Your task to perform on an android device: Search for a new skincare product Image 0: 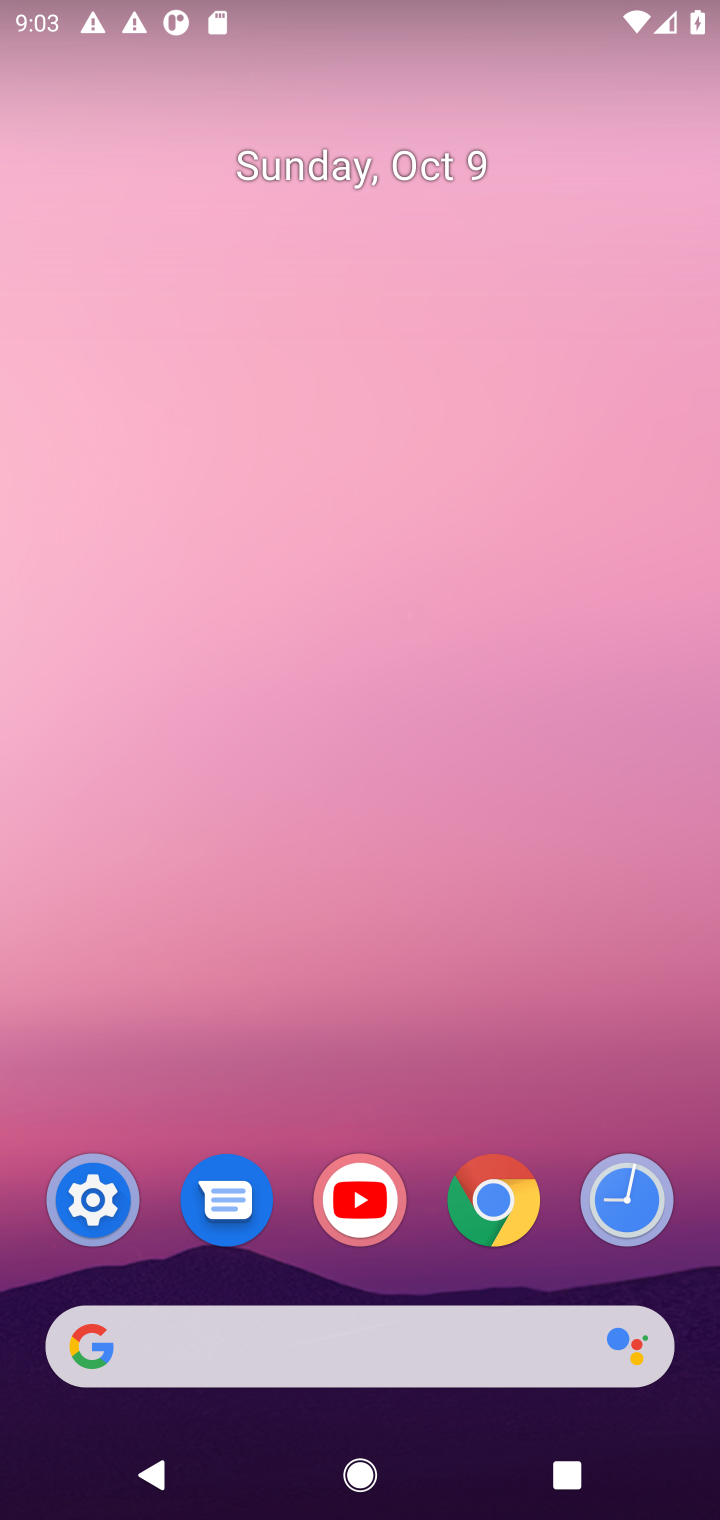
Step 0: drag from (466, 990) to (664, 142)
Your task to perform on an android device: Search for a new skincare product Image 1: 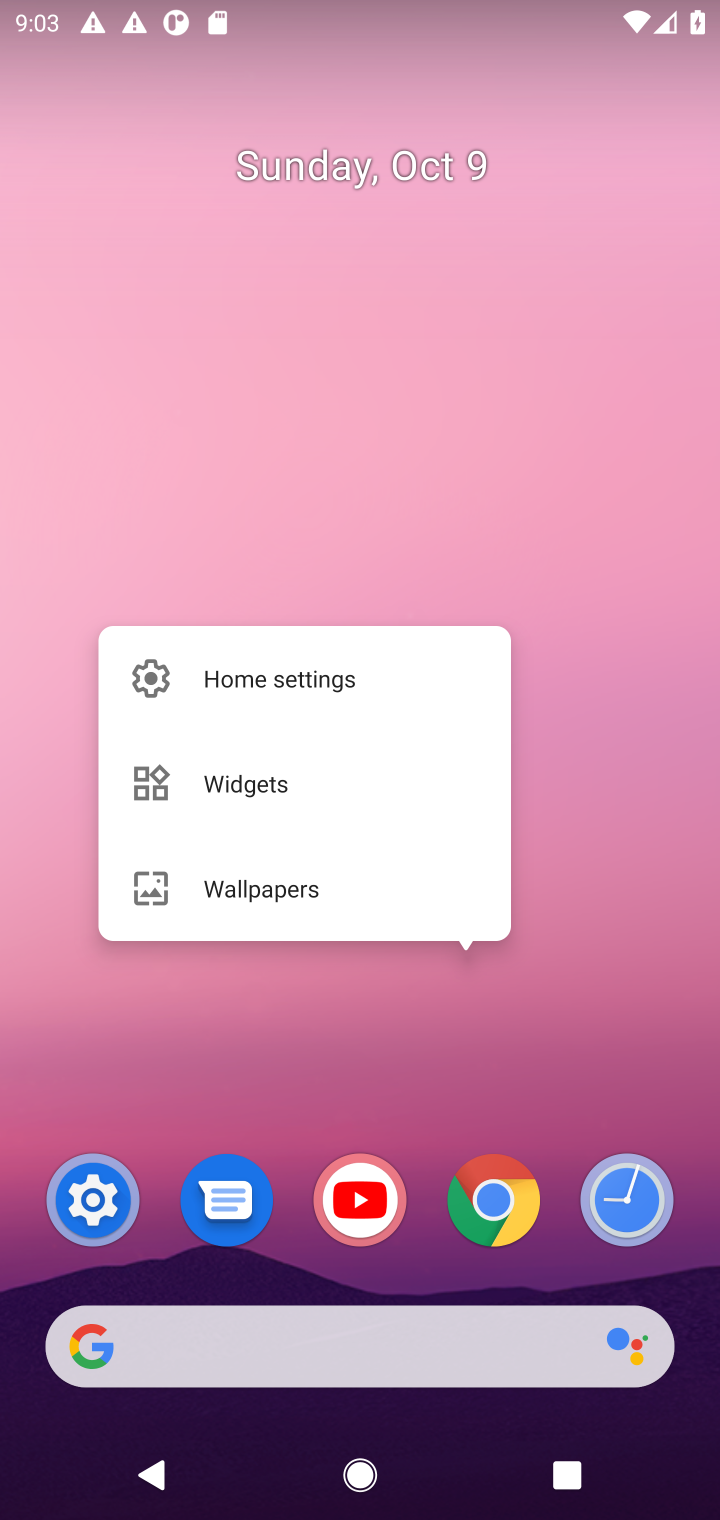
Step 1: click (636, 931)
Your task to perform on an android device: Search for a new skincare product Image 2: 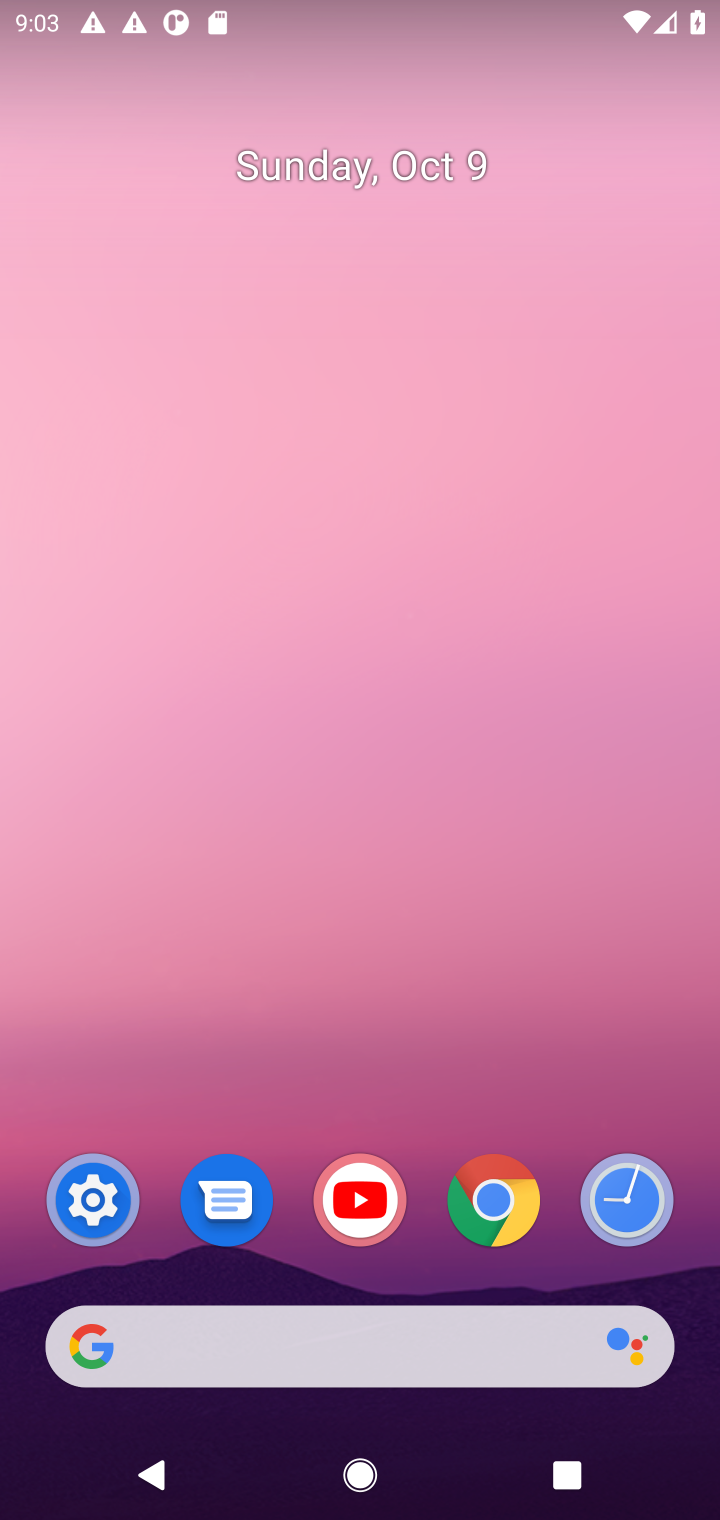
Step 2: click (520, 1190)
Your task to perform on an android device: Search for a new skincare product Image 3: 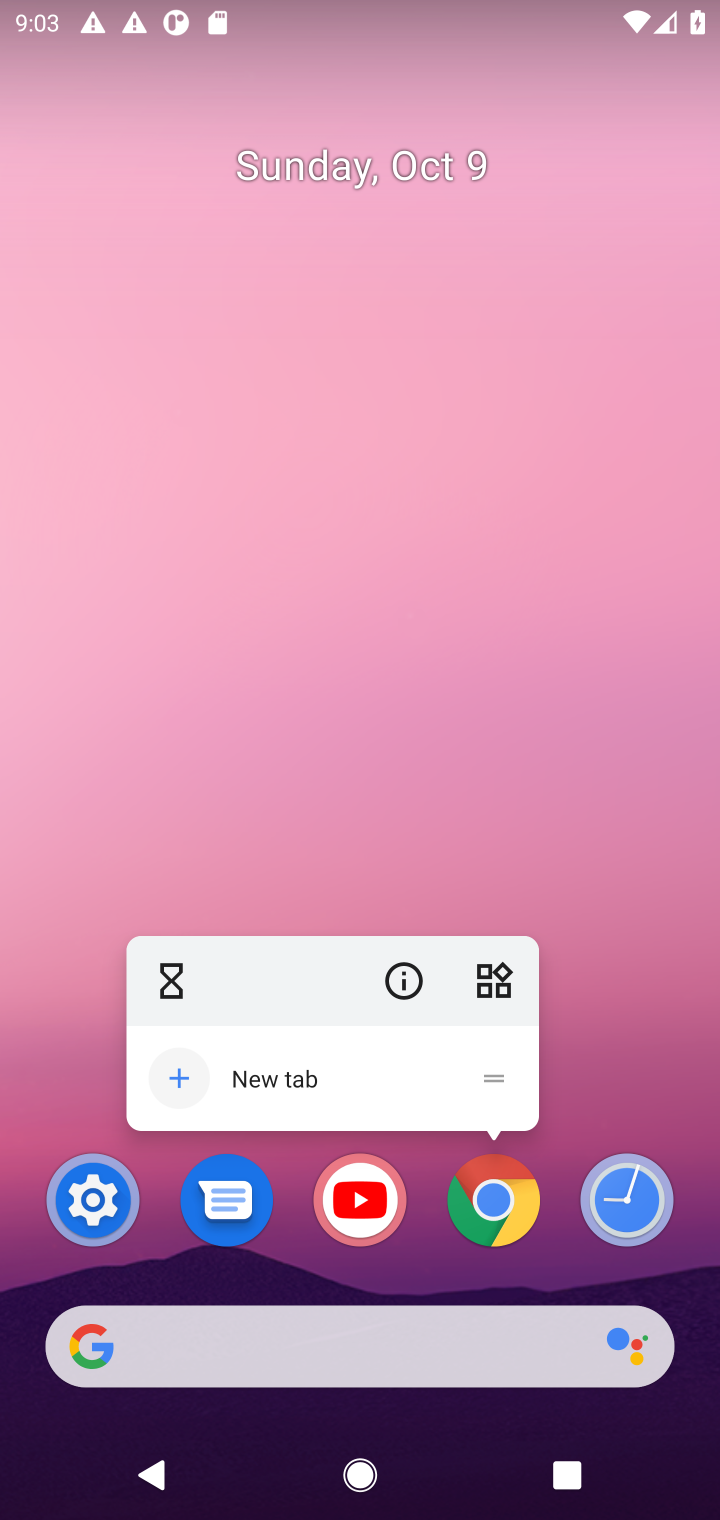
Step 3: click (483, 1197)
Your task to perform on an android device: Search for a new skincare product Image 4: 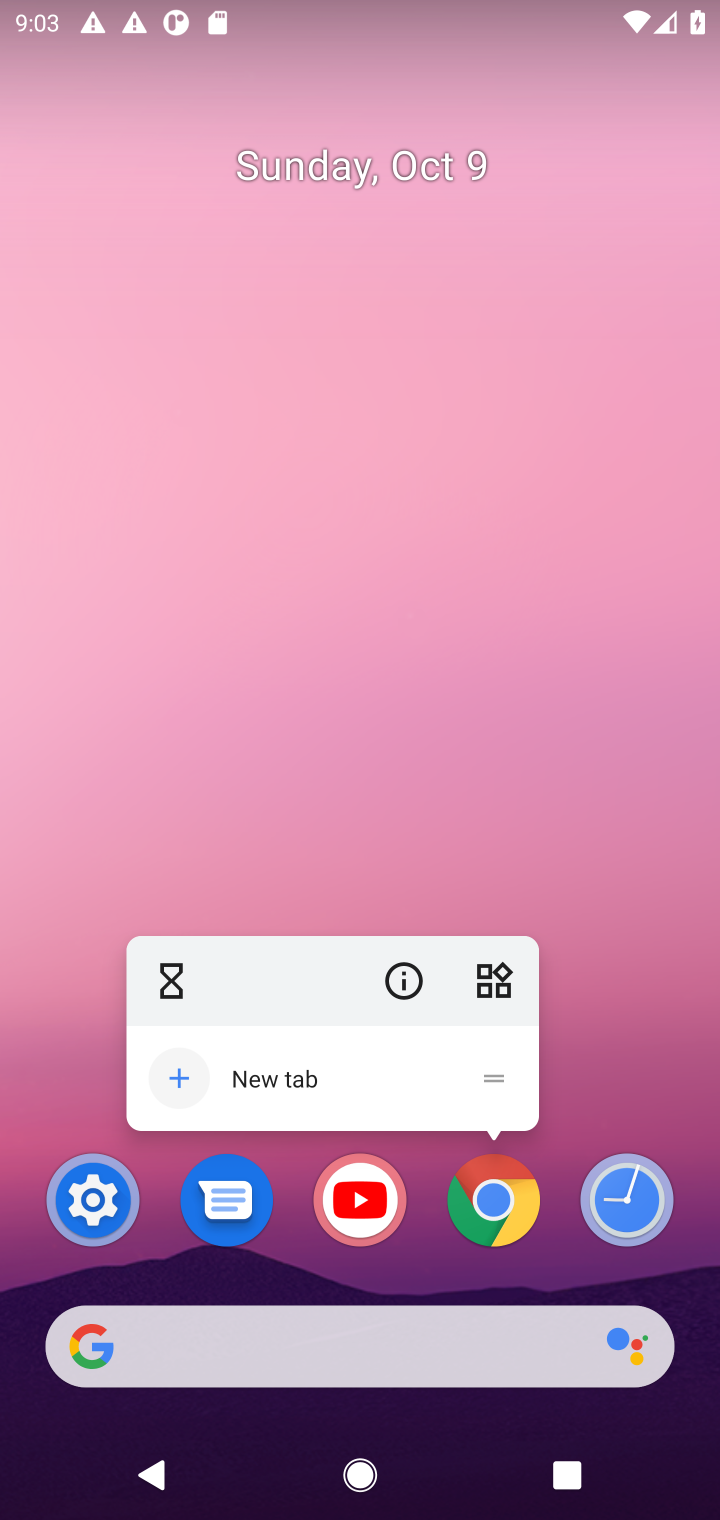
Step 4: click (483, 1197)
Your task to perform on an android device: Search for a new skincare product Image 5: 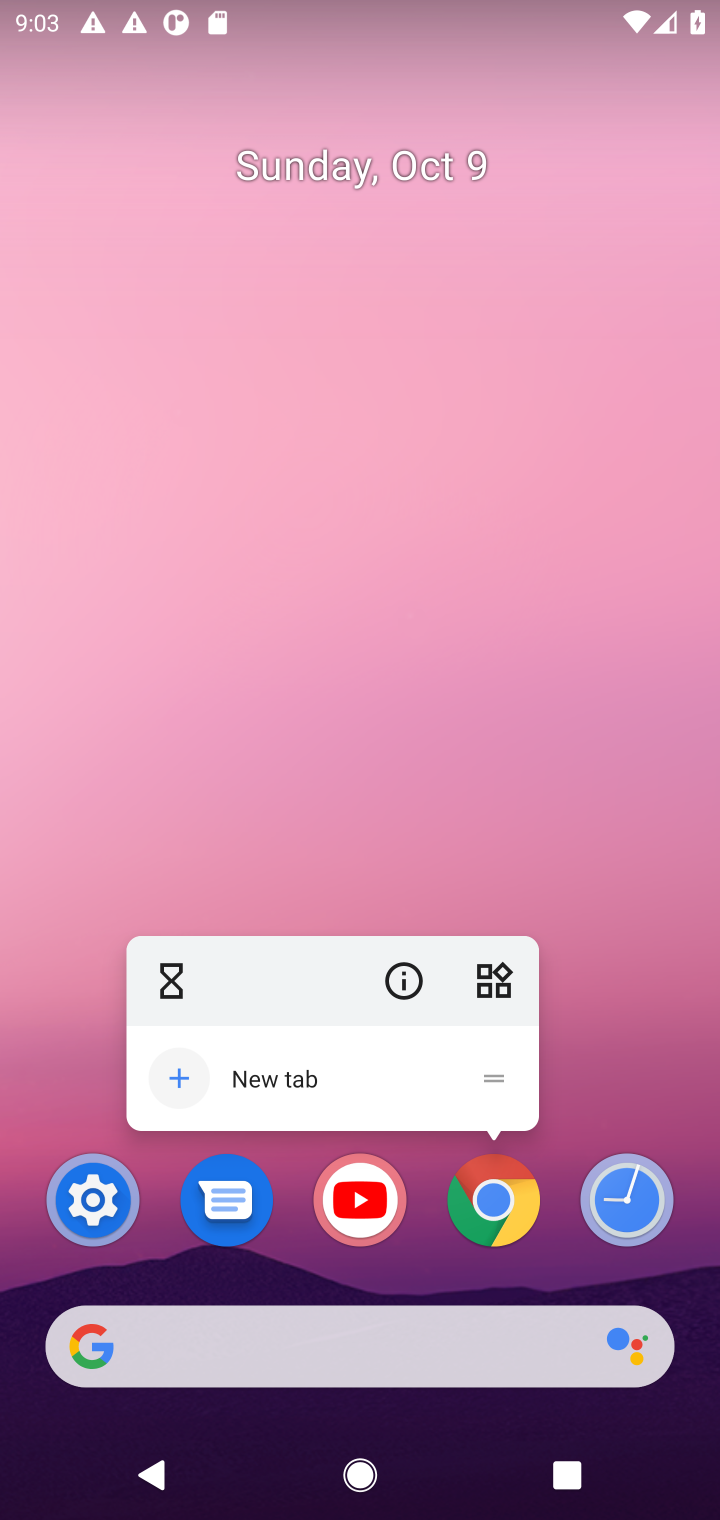
Step 5: click (483, 1197)
Your task to perform on an android device: Search for a new skincare product Image 6: 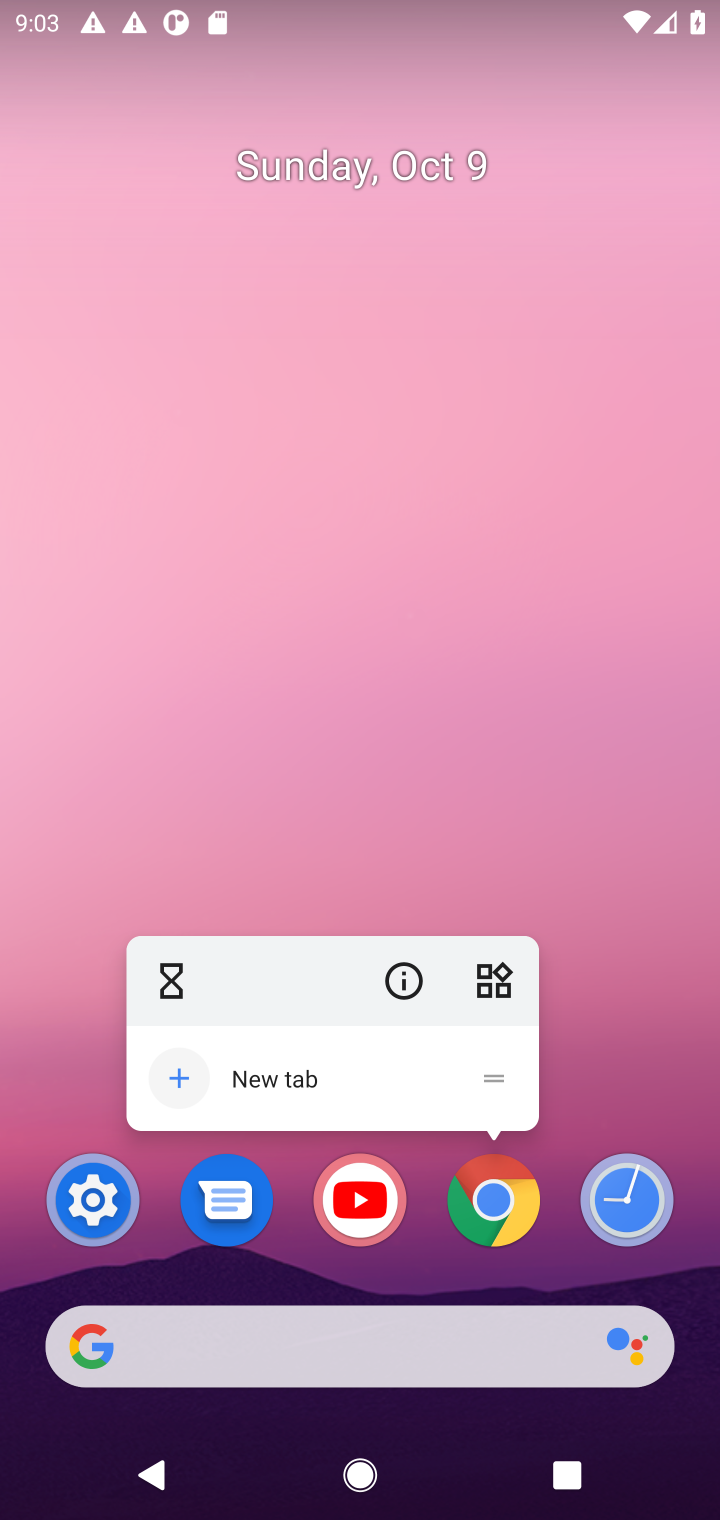
Step 6: click (483, 1197)
Your task to perform on an android device: Search for a new skincare product Image 7: 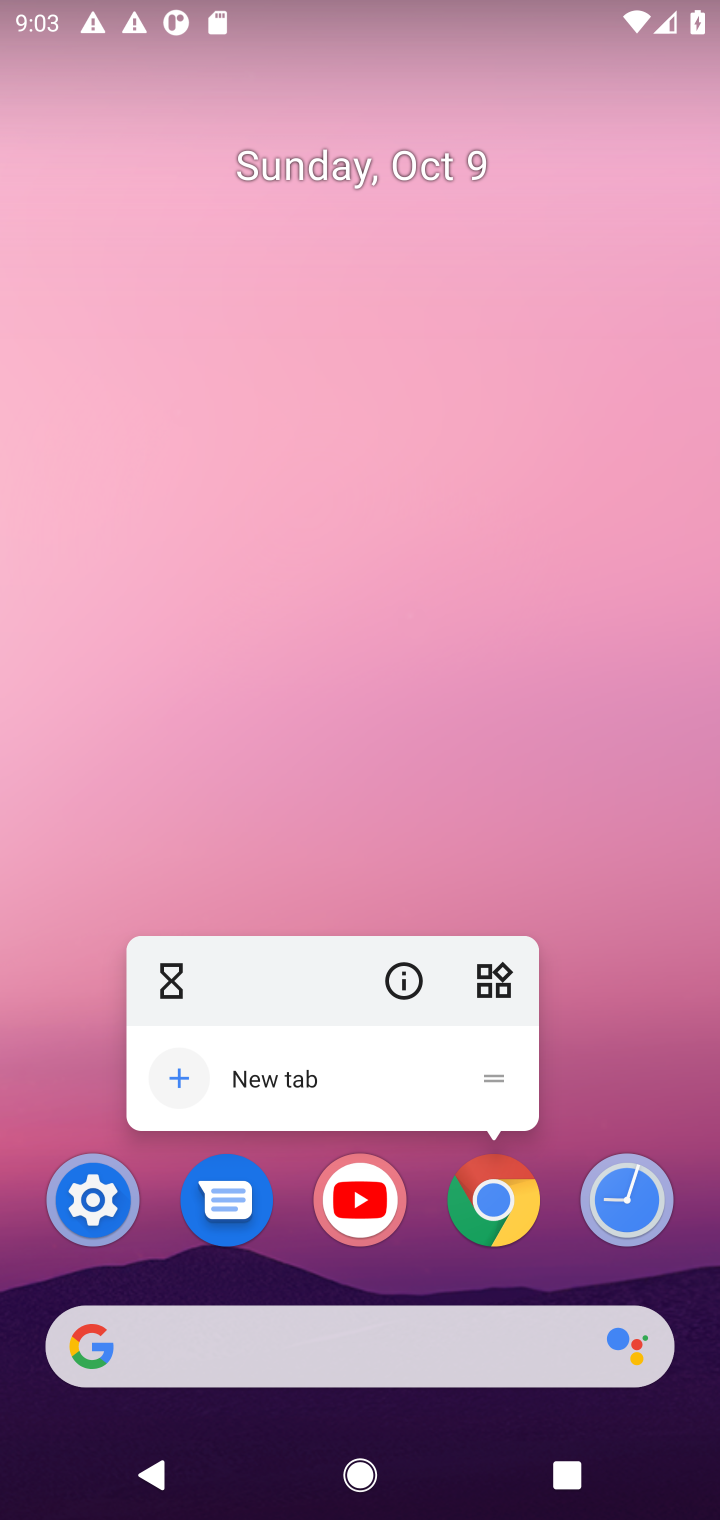
Step 7: click (495, 1201)
Your task to perform on an android device: Search for a new skincare product Image 8: 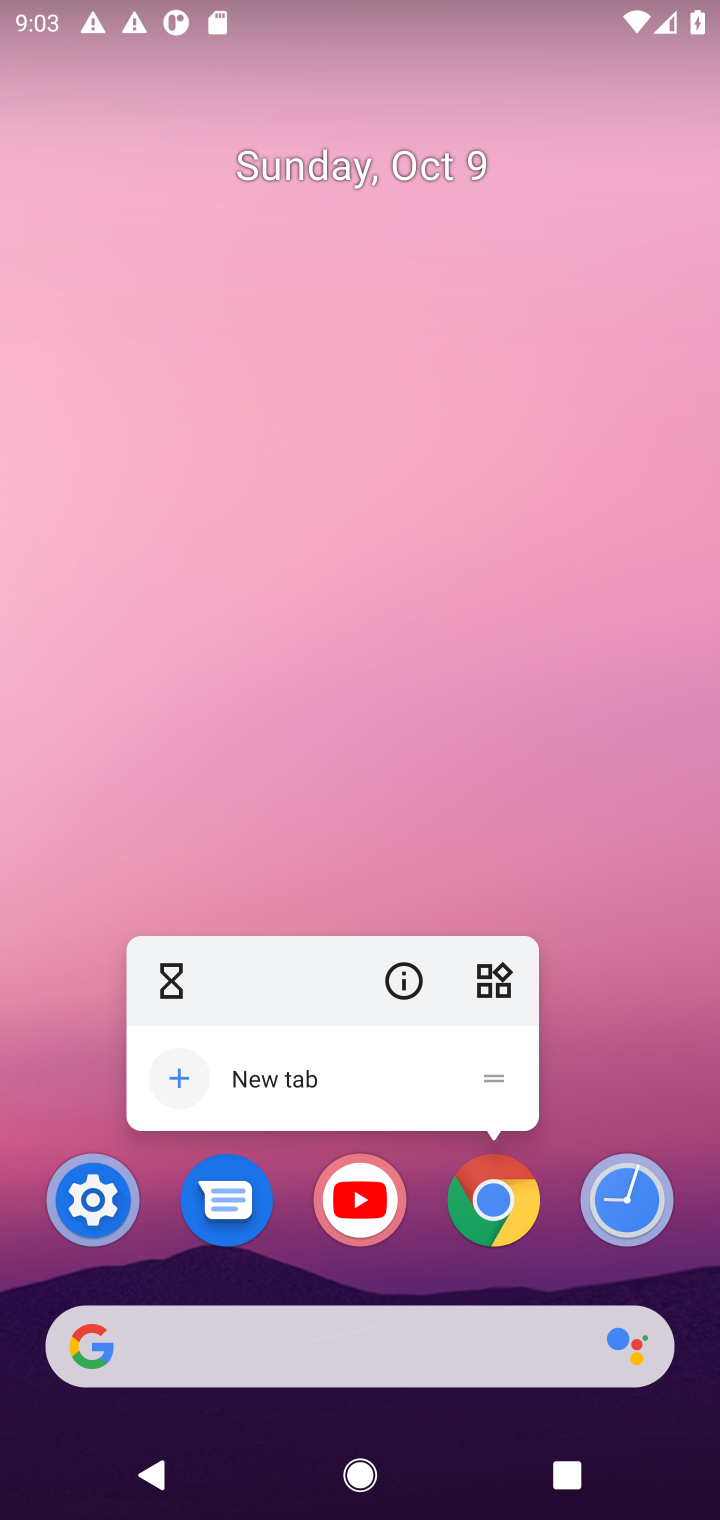
Step 8: click (495, 1201)
Your task to perform on an android device: Search for a new skincare product Image 9: 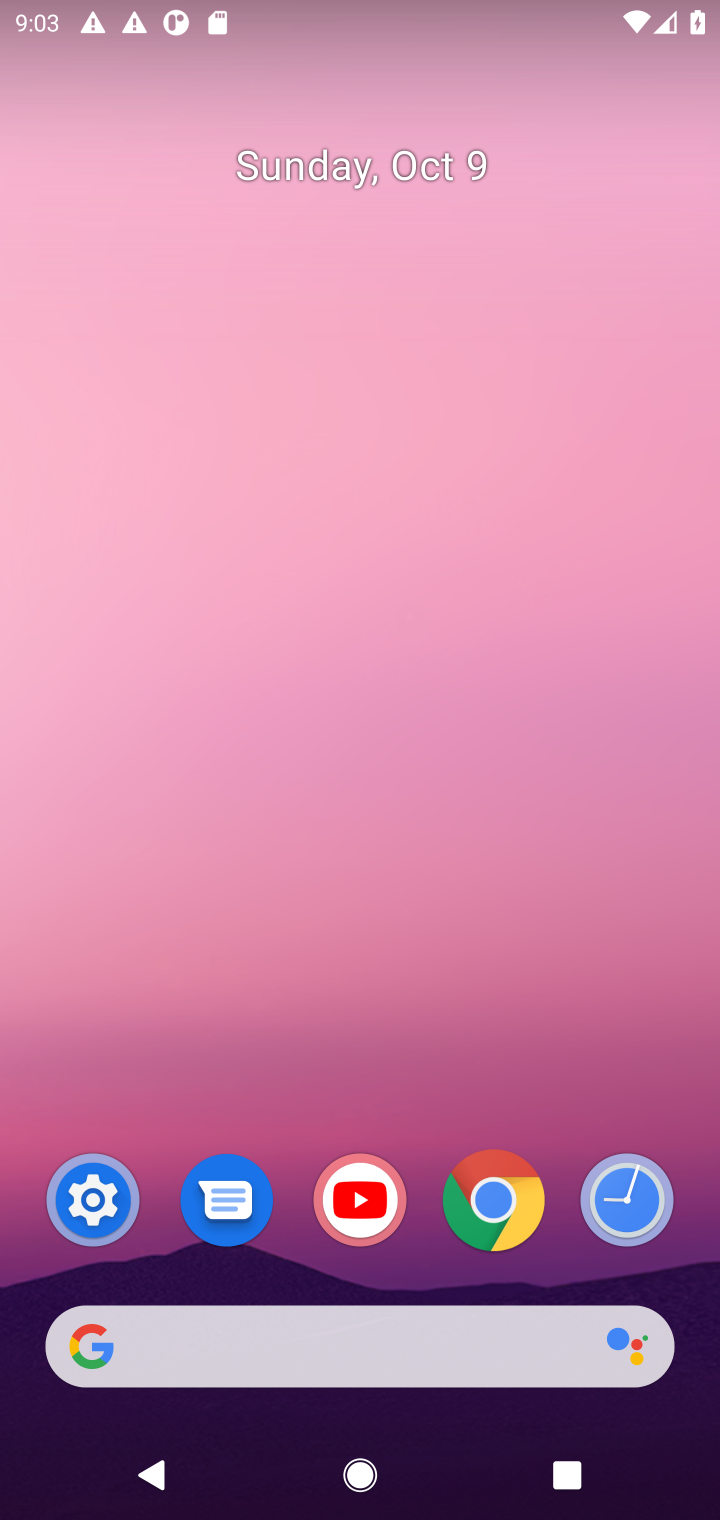
Step 9: click (494, 1194)
Your task to perform on an android device: Search for a new skincare product Image 10: 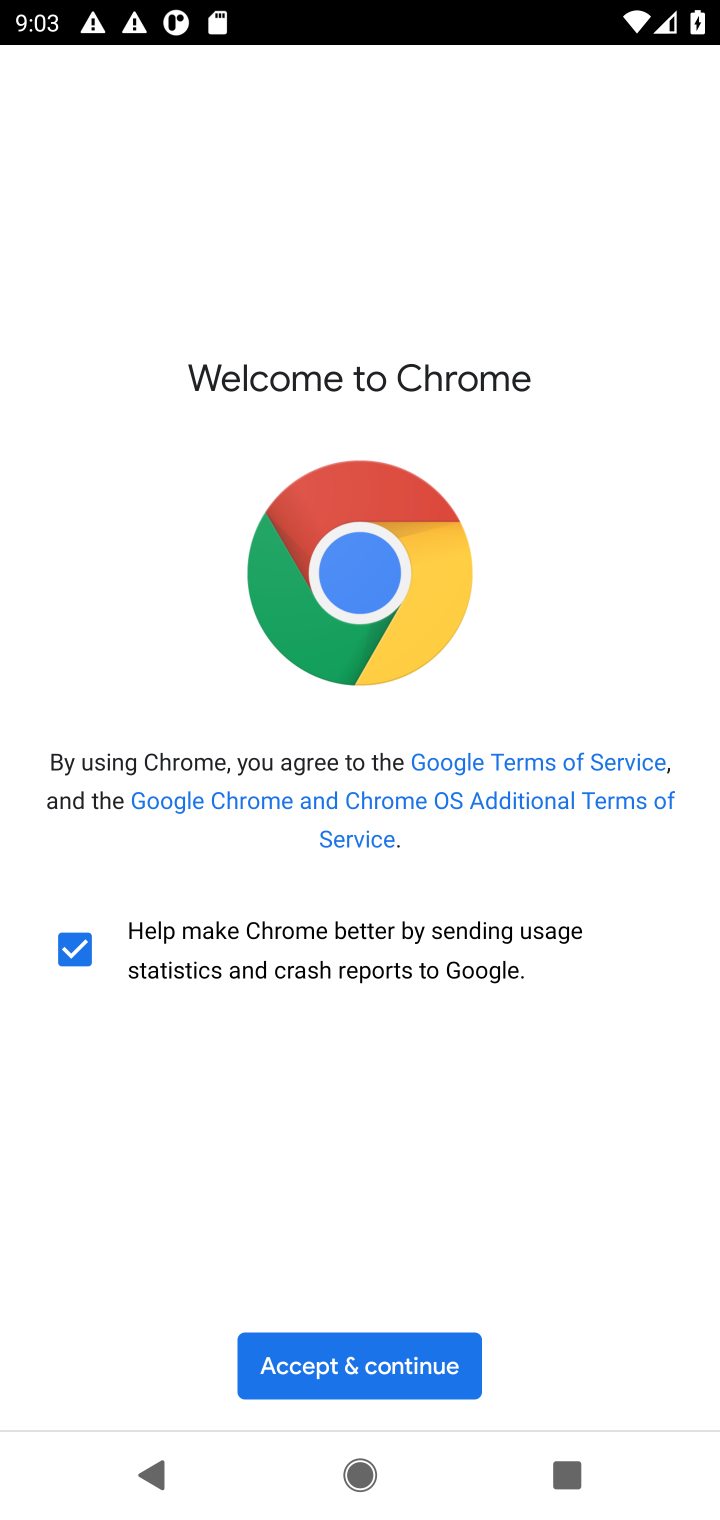
Step 10: click (449, 1352)
Your task to perform on an android device: Search for a new skincare product Image 11: 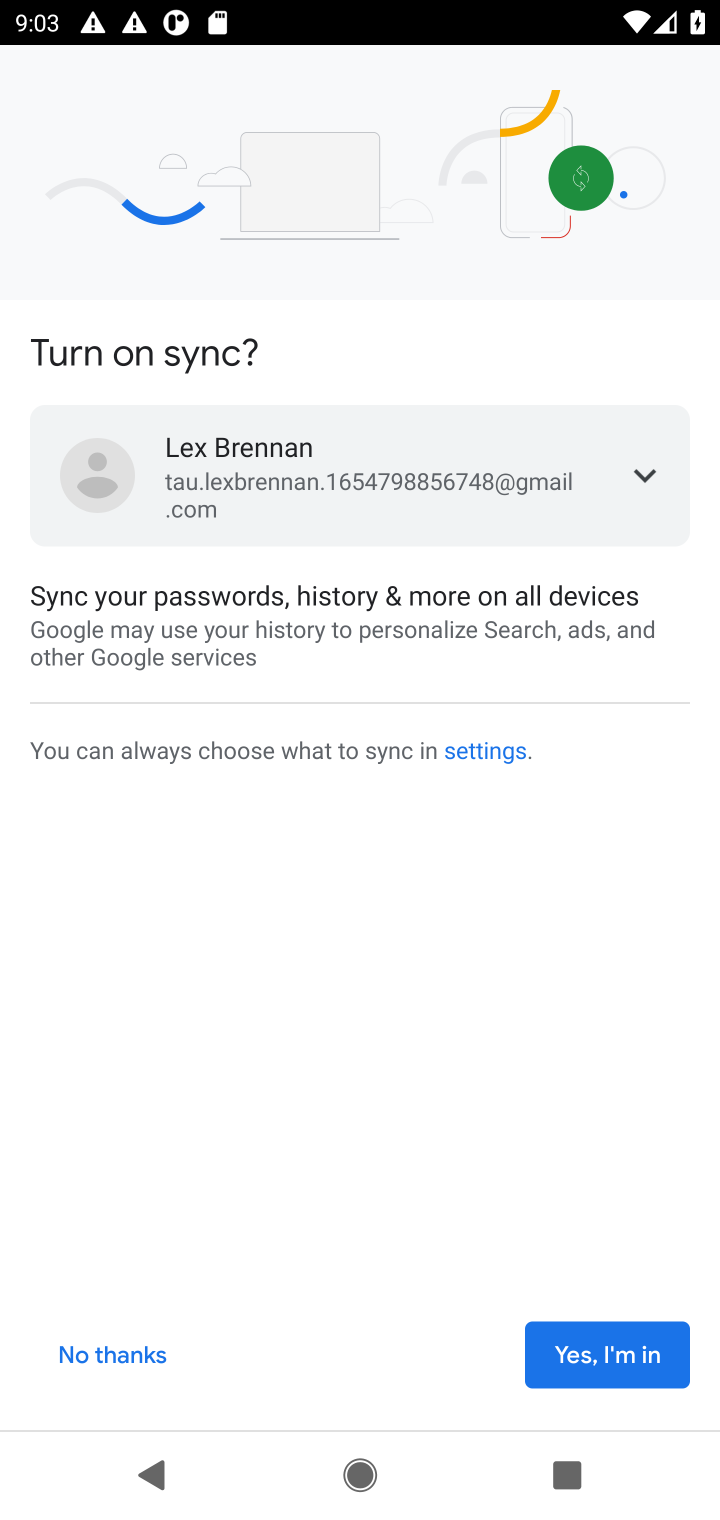
Step 11: click (635, 1346)
Your task to perform on an android device: Search for a new skincare product Image 12: 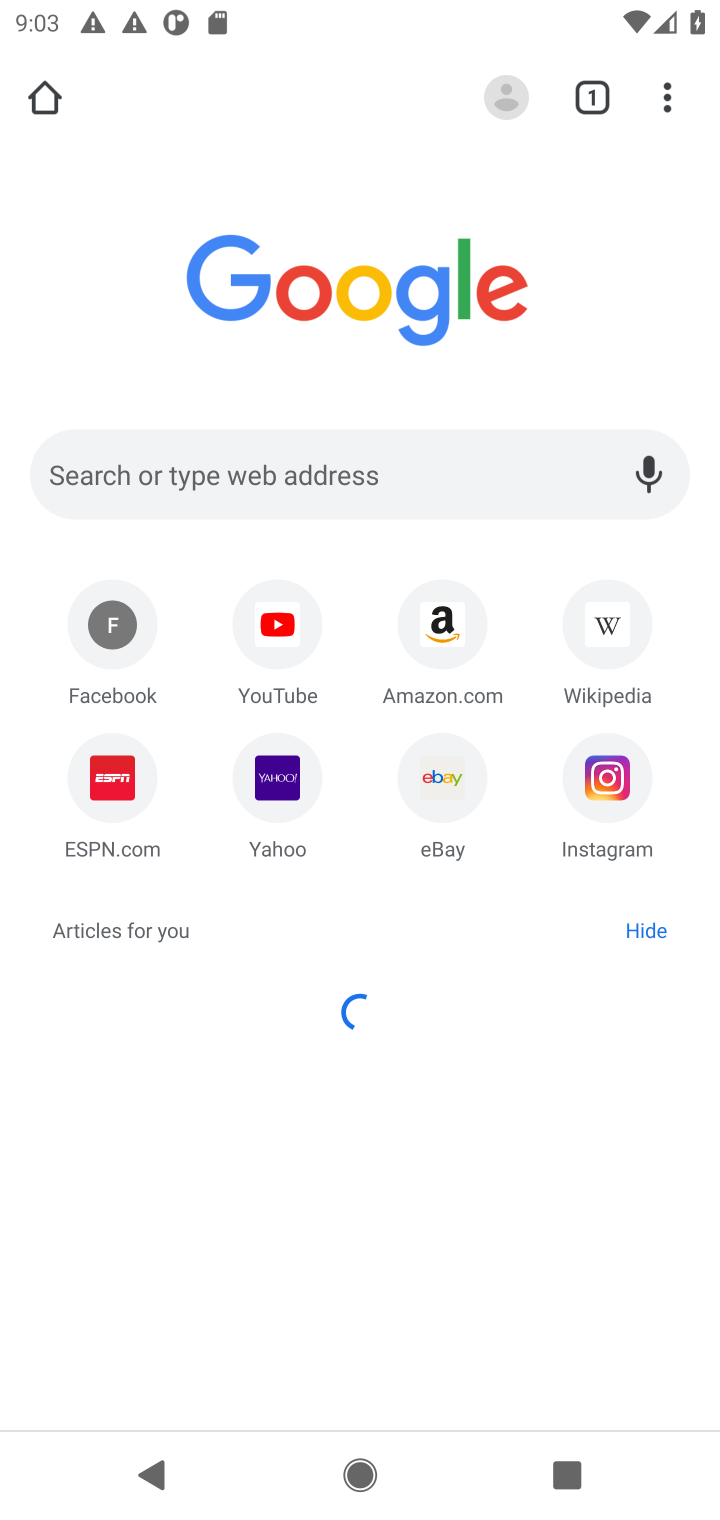
Step 12: click (305, 470)
Your task to perform on an android device: Search for a new skincare product Image 13: 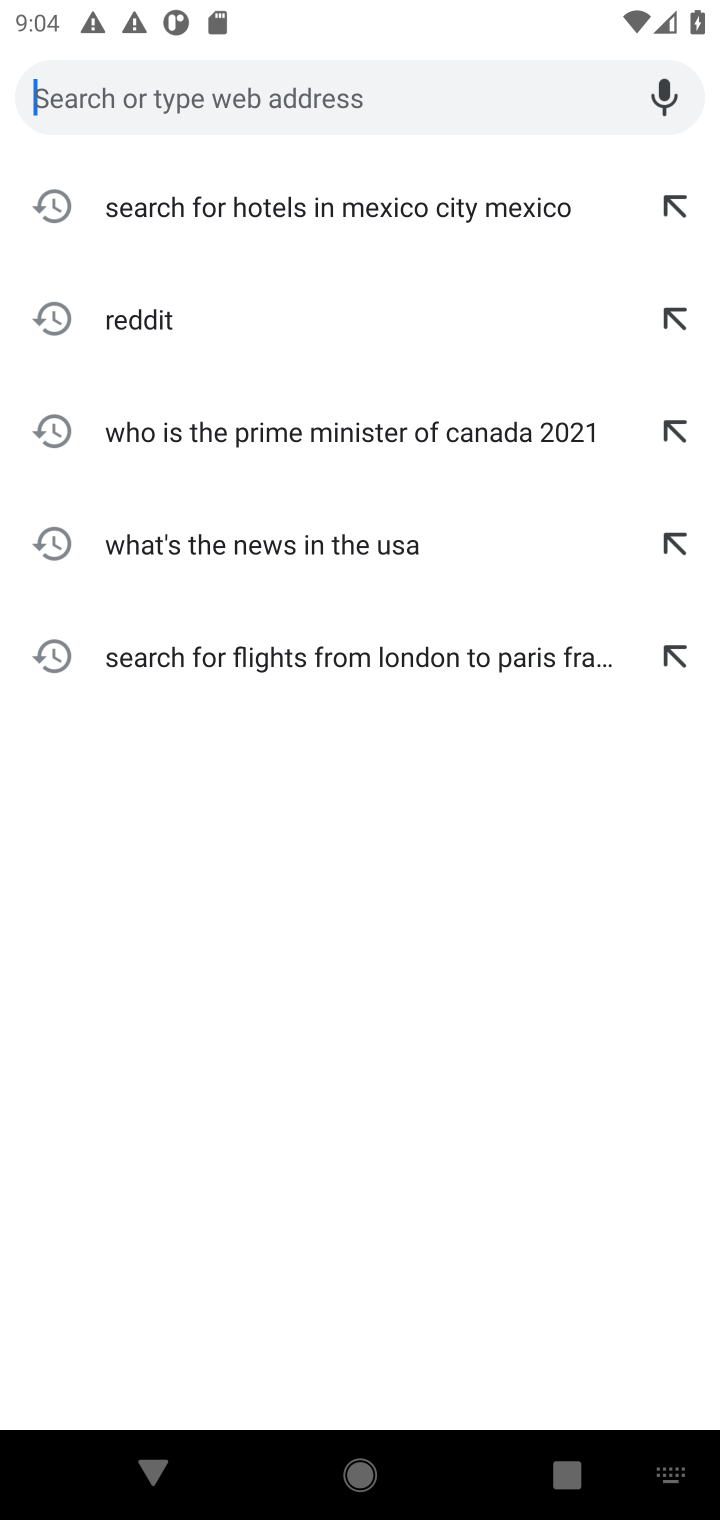
Step 13: type "new skincare product"
Your task to perform on an android device: Search for a new skincare product Image 14: 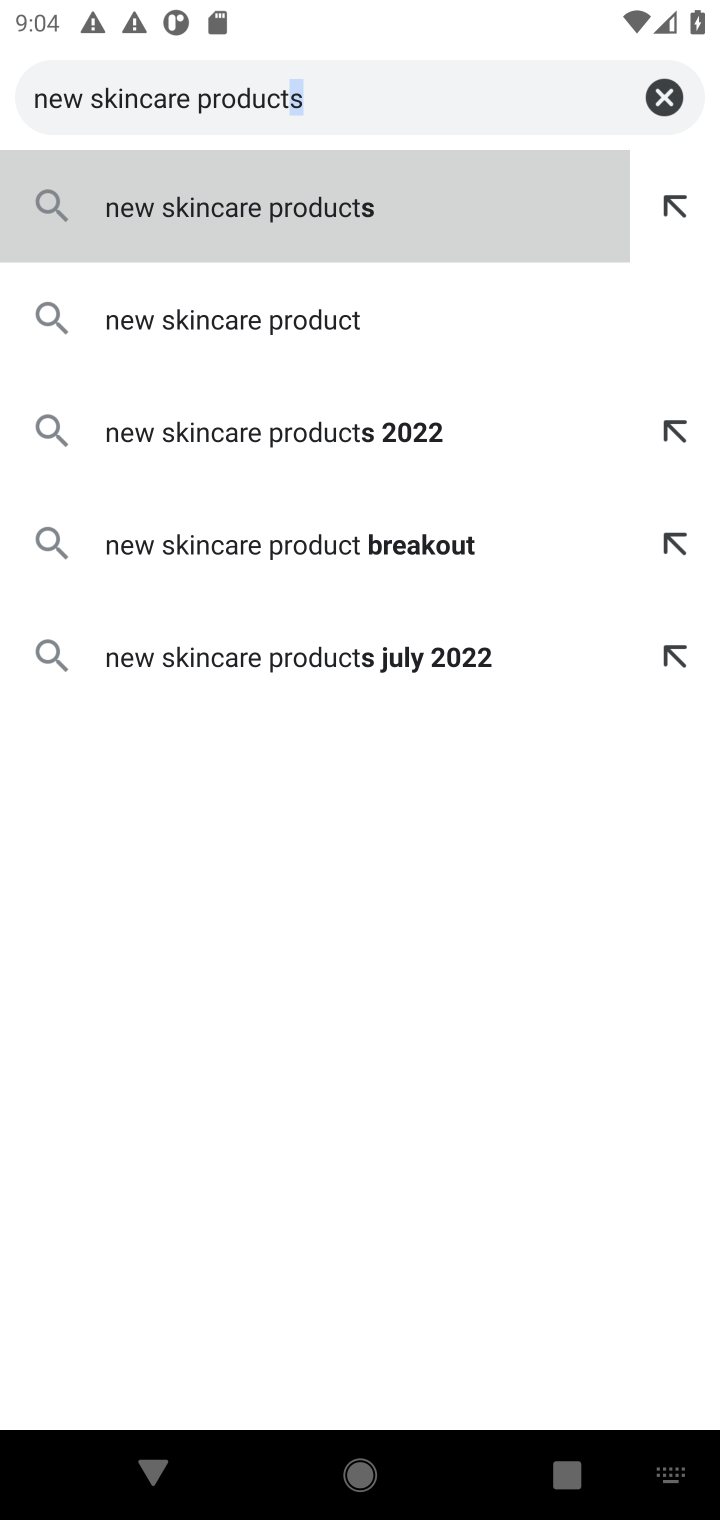
Step 14: click (224, 202)
Your task to perform on an android device: Search for a new skincare product Image 15: 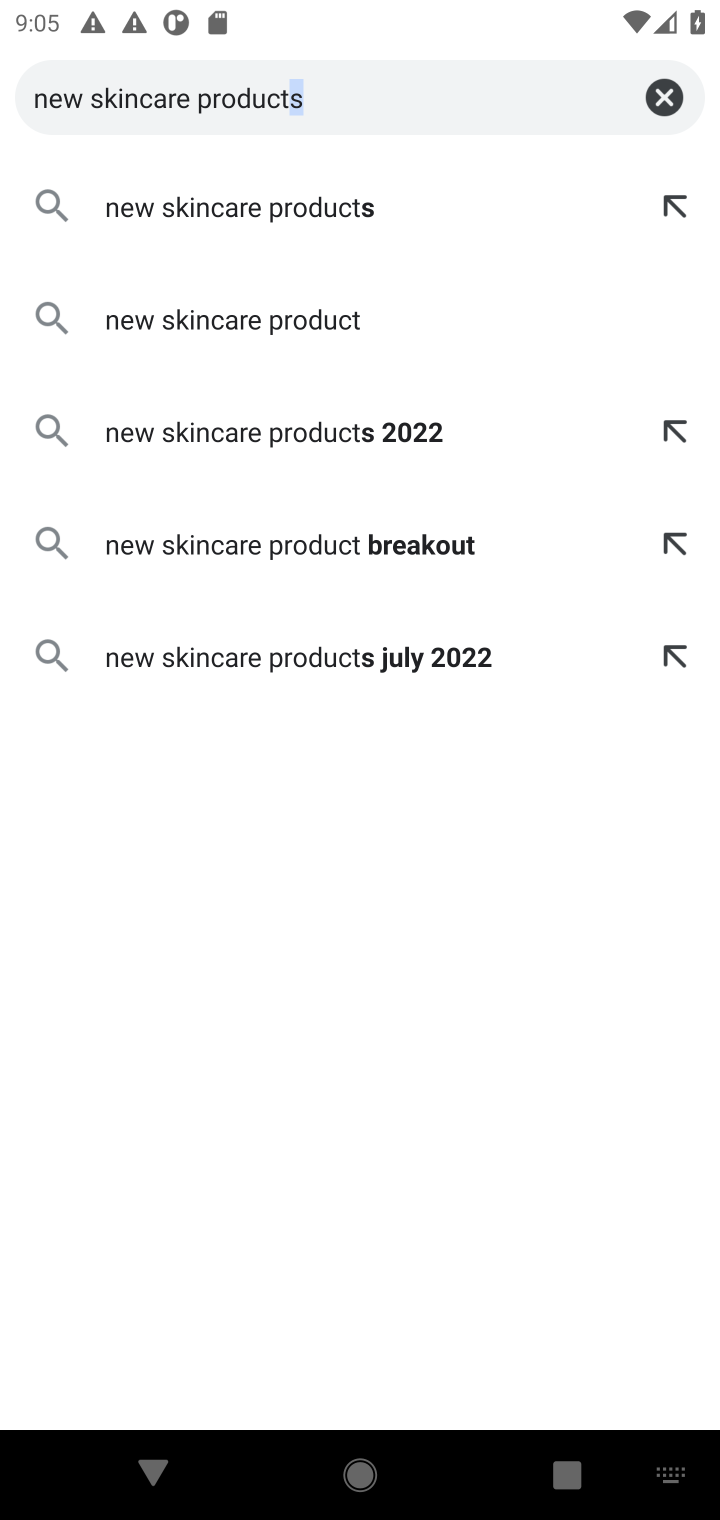
Step 15: click (339, 212)
Your task to perform on an android device: Search for a new skincare product Image 16: 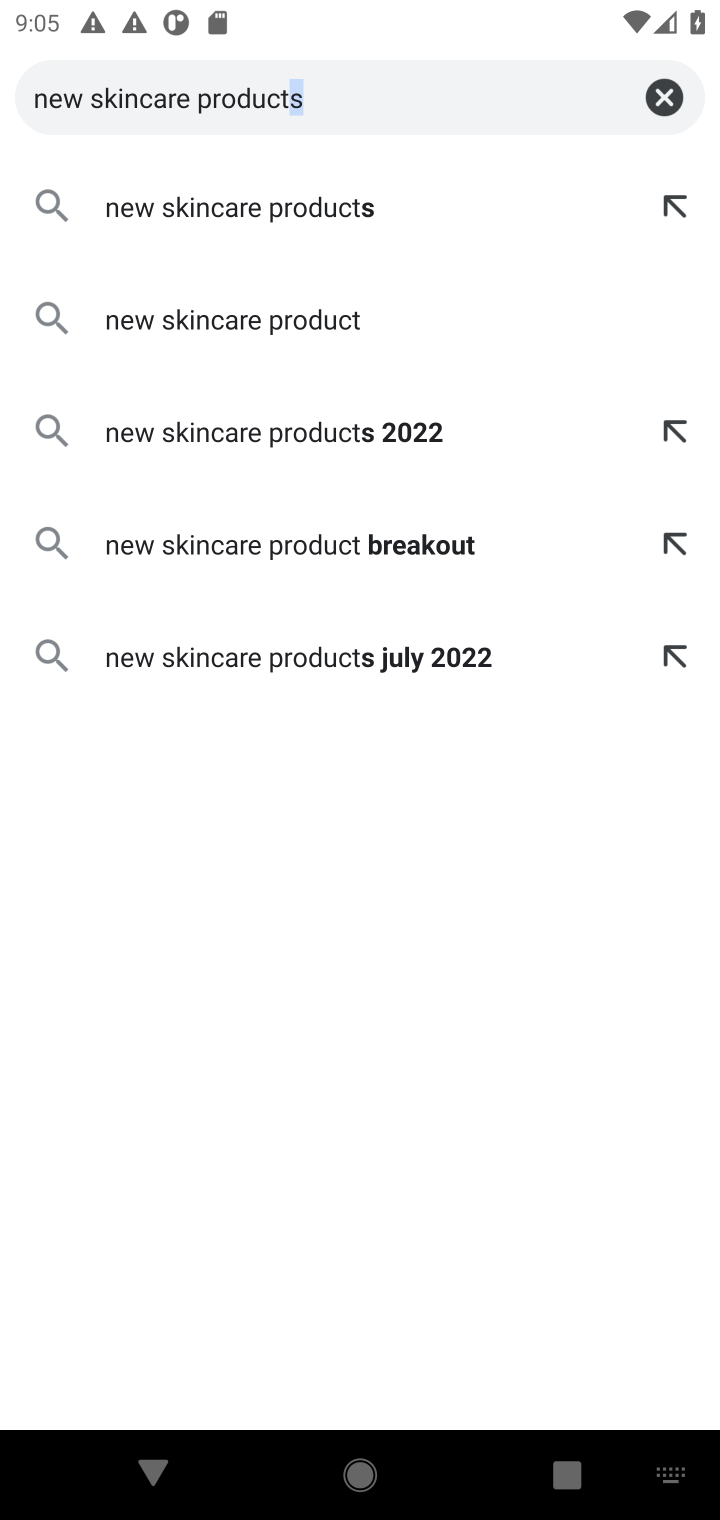
Step 16: click (279, 196)
Your task to perform on an android device: Search for a new skincare product Image 17: 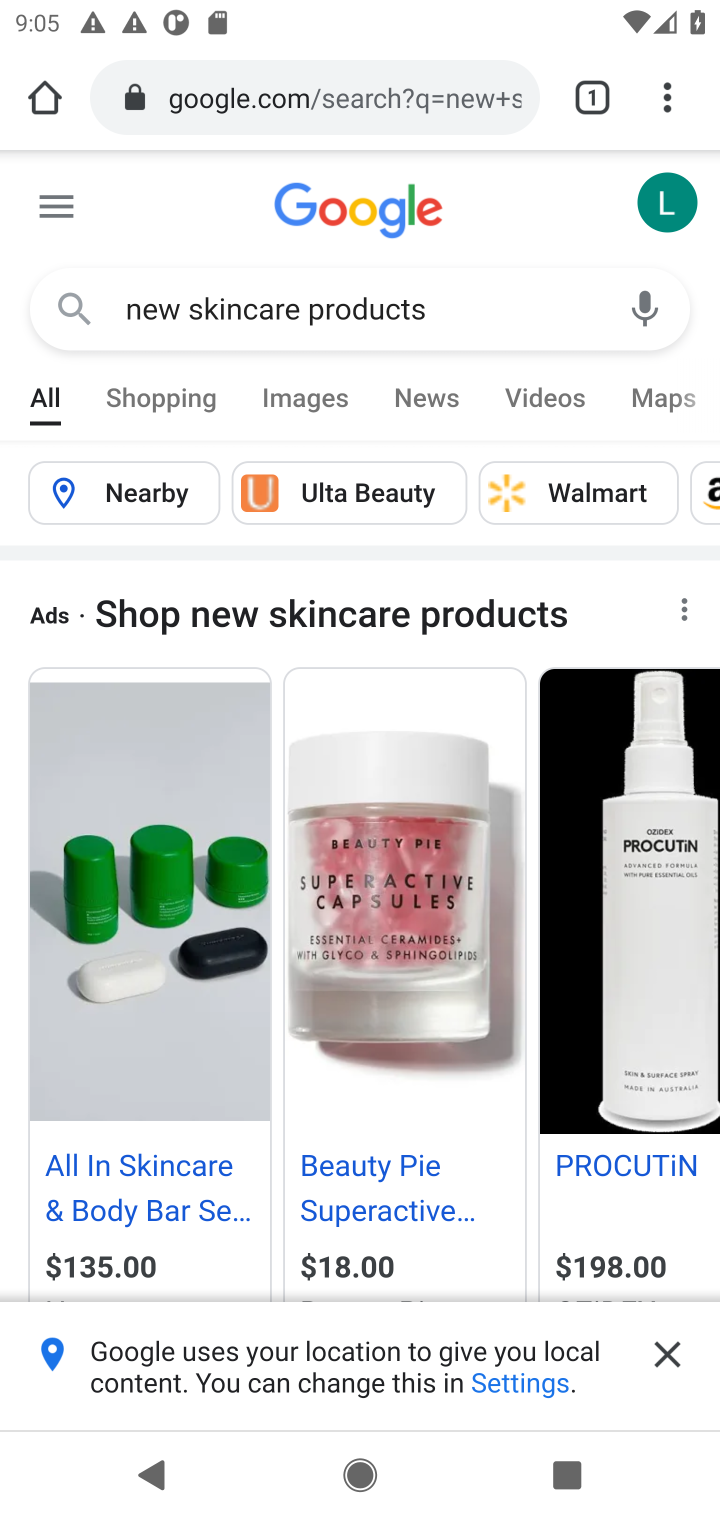
Step 17: task complete